Your task to perform on an android device: Go to display settings Image 0: 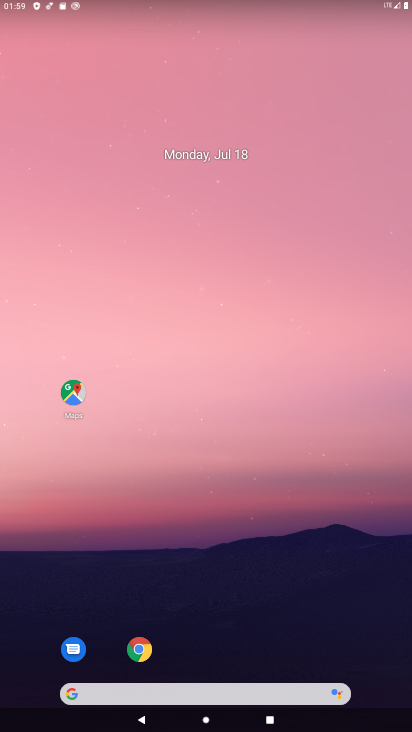
Step 0: drag from (172, 690) to (116, 105)
Your task to perform on an android device: Go to display settings Image 1: 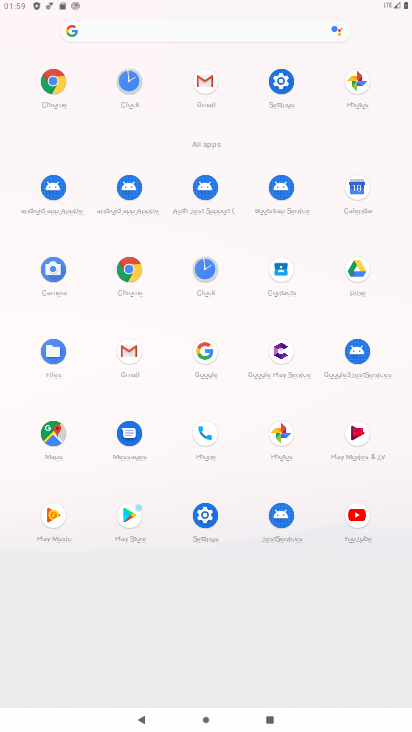
Step 1: click (270, 85)
Your task to perform on an android device: Go to display settings Image 2: 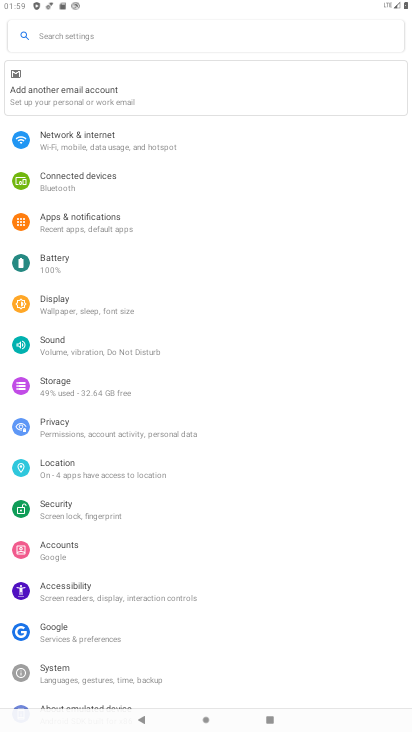
Step 2: click (46, 306)
Your task to perform on an android device: Go to display settings Image 3: 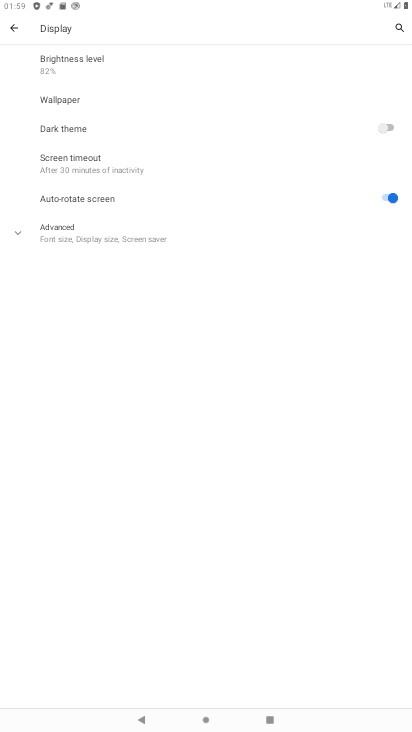
Step 3: task complete